Your task to perform on an android device: open app "WhatsApp Messenger" (install if not already installed) Image 0: 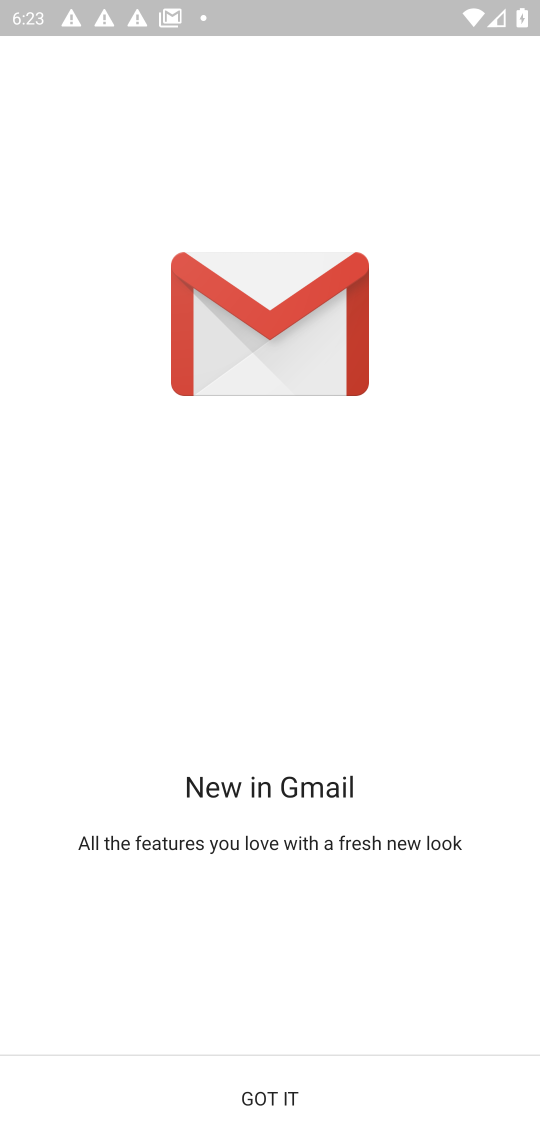
Step 0: press home button
Your task to perform on an android device: open app "WhatsApp Messenger" (install if not already installed) Image 1: 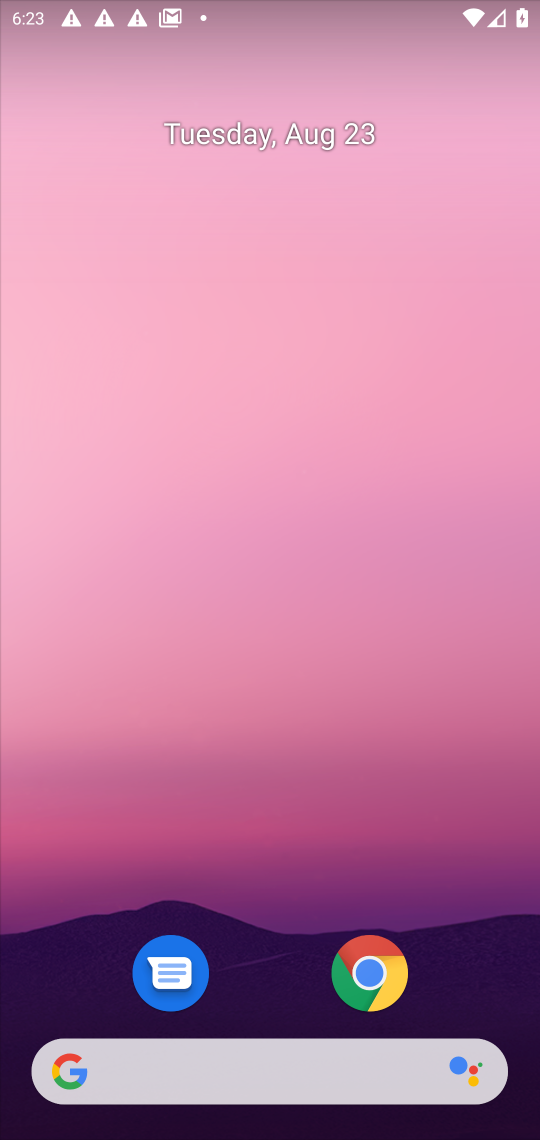
Step 1: drag from (273, 924) to (333, 126)
Your task to perform on an android device: open app "WhatsApp Messenger" (install if not already installed) Image 2: 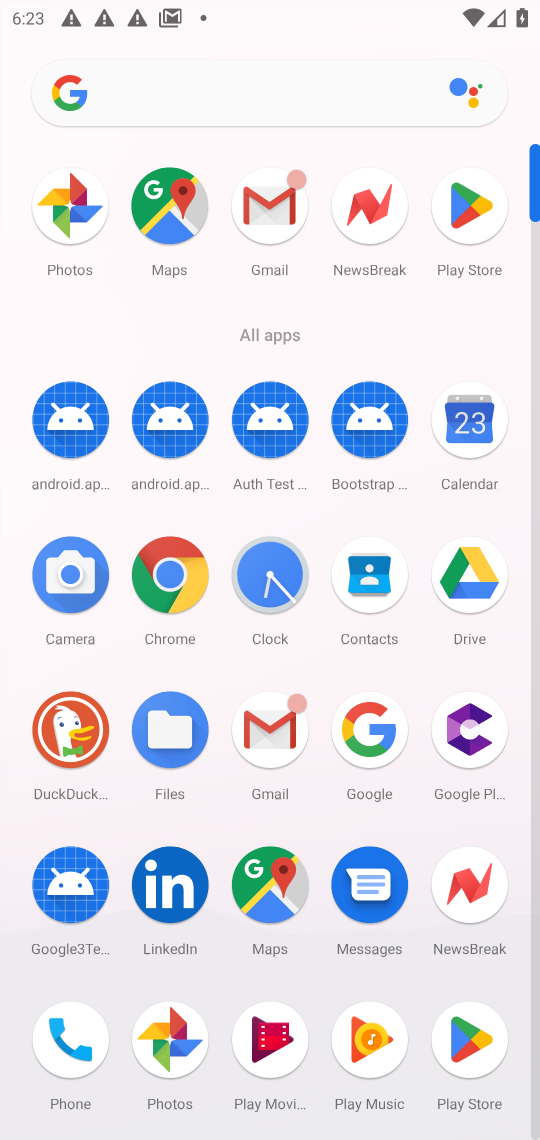
Step 2: click (462, 201)
Your task to perform on an android device: open app "WhatsApp Messenger" (install if not already installed) Image 3: 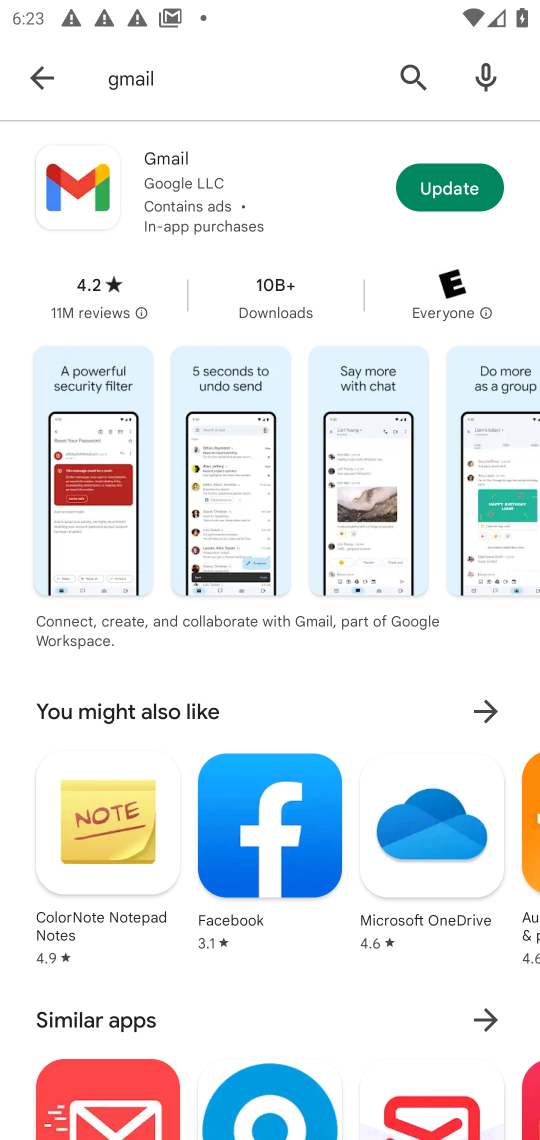
Step 3: click (391, 58)
Your task to perform on an android device: open app "WhatsApp Messenger" (install if not already installed) Image 4: 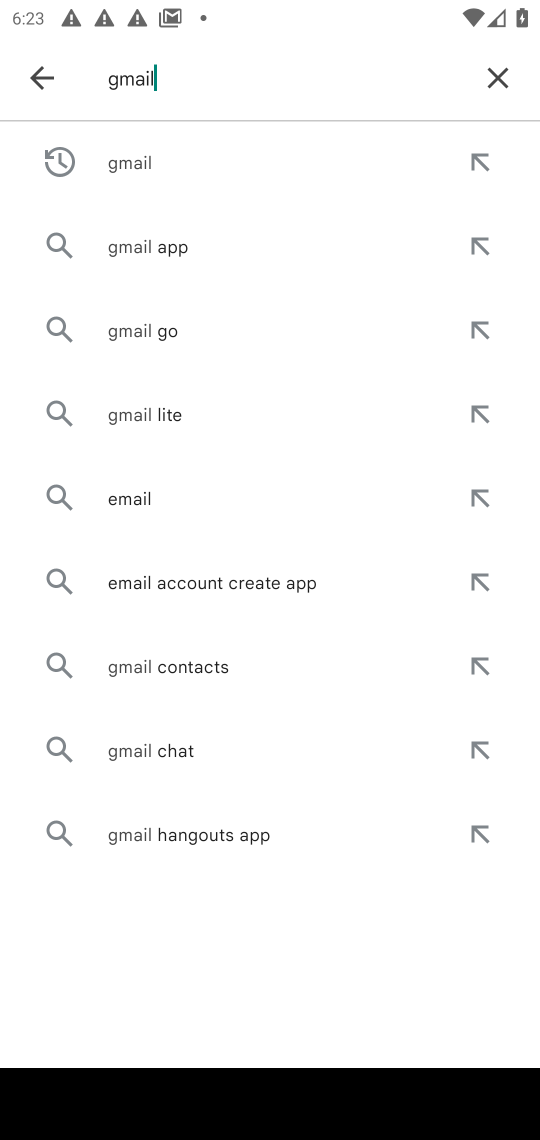
Step 4: click (488, 88)
Your task to perform on an android device: open app "WhatsApp Messenger" (install if not already installed) Image 5: 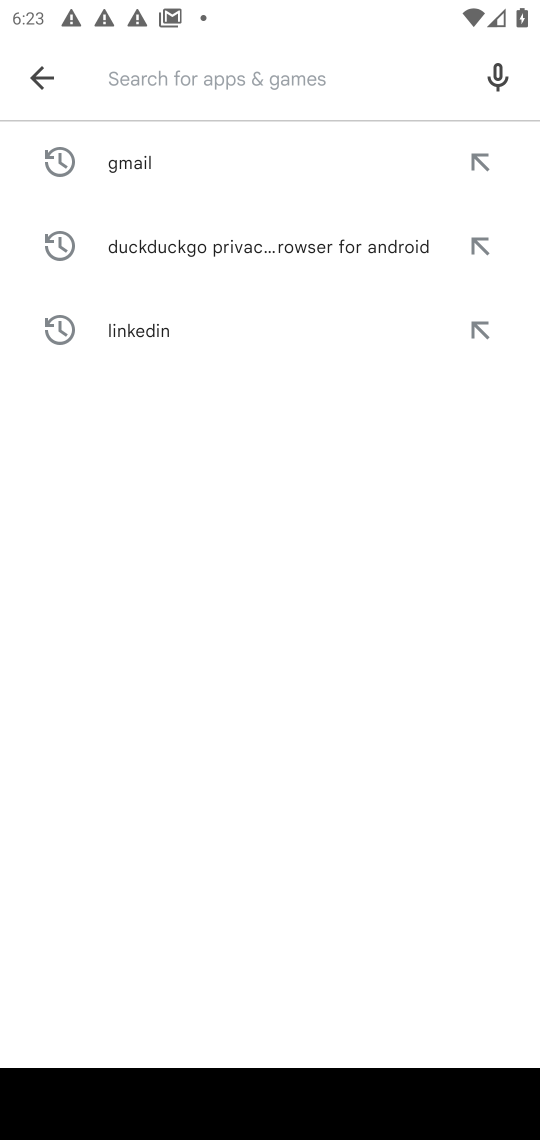
Step 5: click (163, 93)
Your task to perform on an android device: open app "WhatsApp Messenger" (install if not already installed) Image 6: 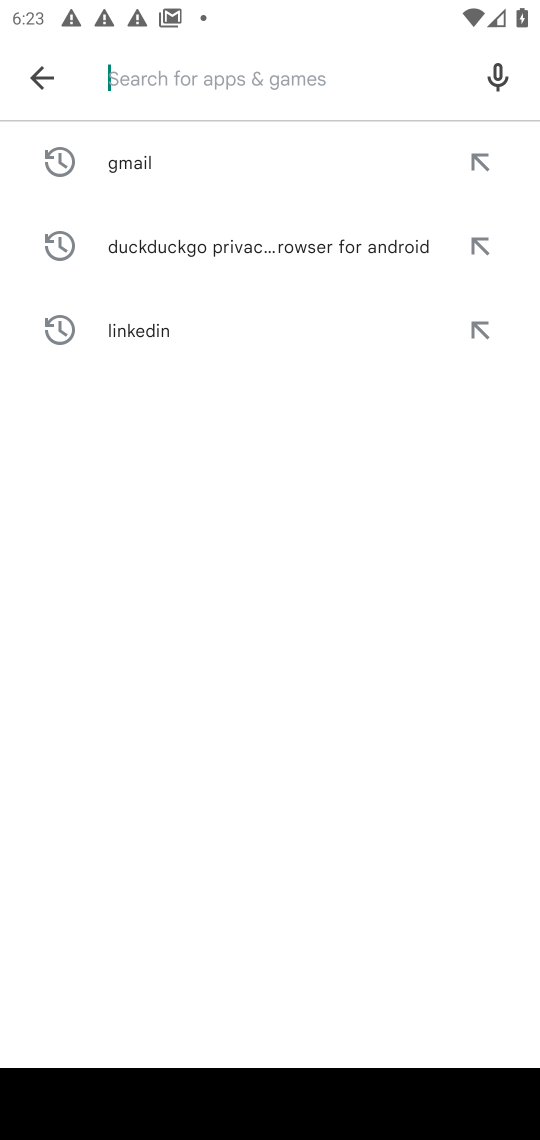
Step 6: type "WhatsApp Messenger"
Your task to perform on an android device: open app "WhatsApp Messenger" (install if not already installed) Image 7: 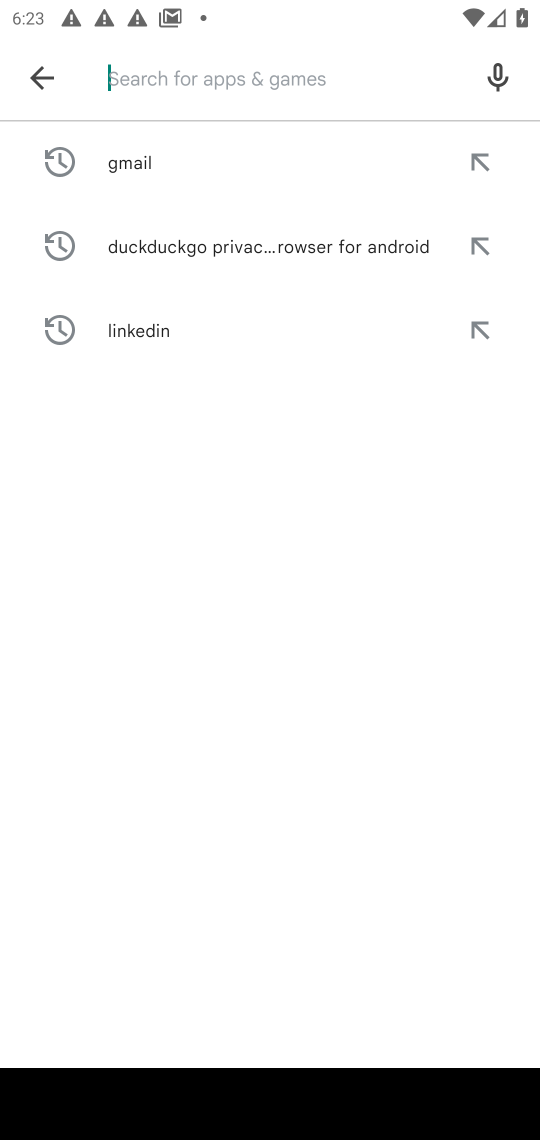
Step 7: click (324, 621)
Your task to perform on an android device: open app "WhatsApp Messenger" (install if not already installed) Image 8: 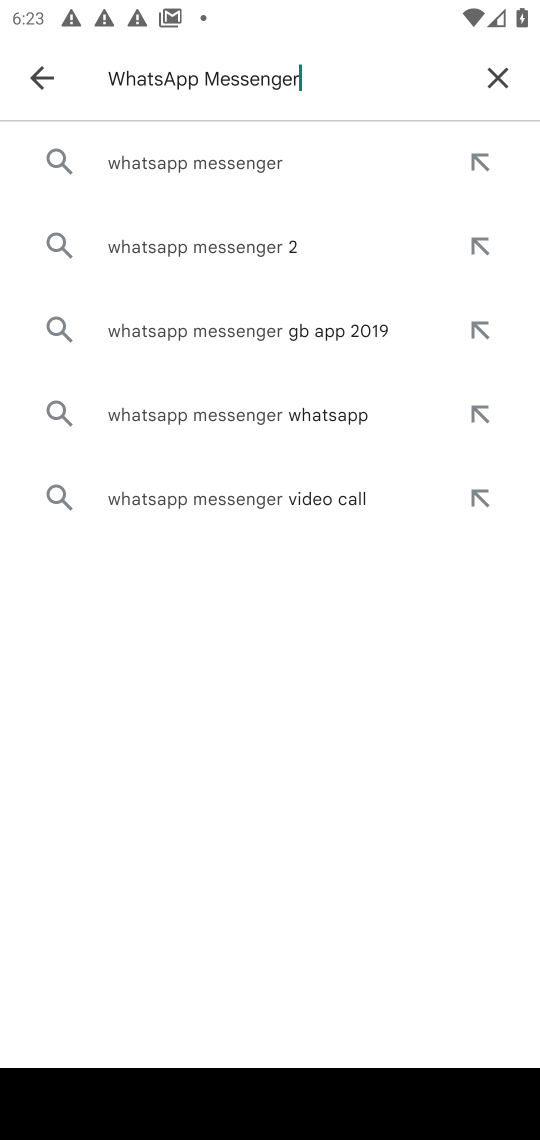
Step 8: click (208, 151)
Your task to perform on an android device: open app "WhatsApp Messenger" (install if not already installed) Image 9: 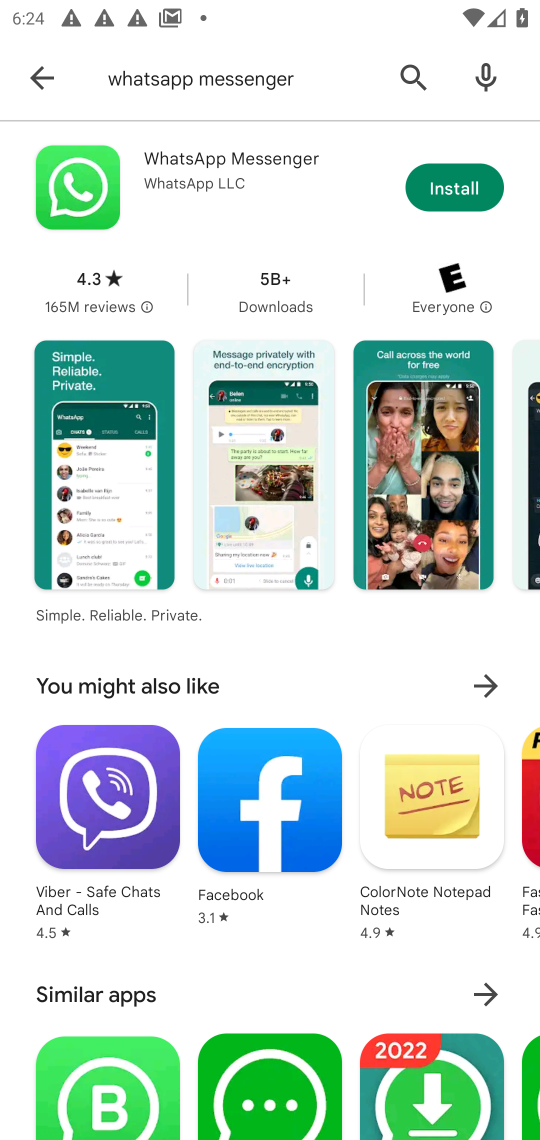
Step 9: click (449, 184)
Your task to perform on an android device: open app "WhatsApp Messenger" (install if not already installed) Image 10: 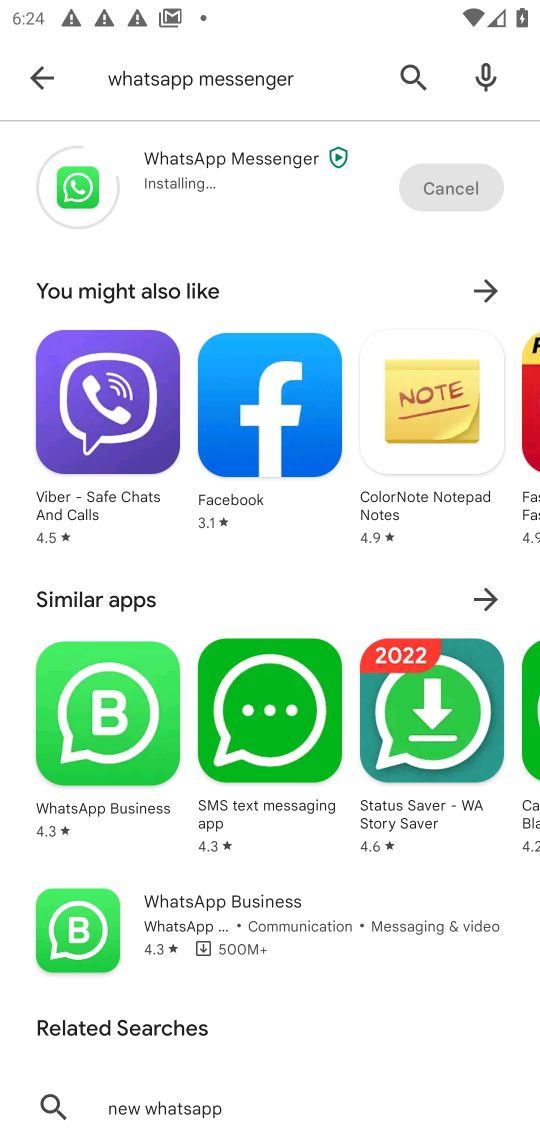
Step 10: press back button
Your task to perform on an android device: open app "WhatsApp Messenger" (install if not already installed) Image 11: 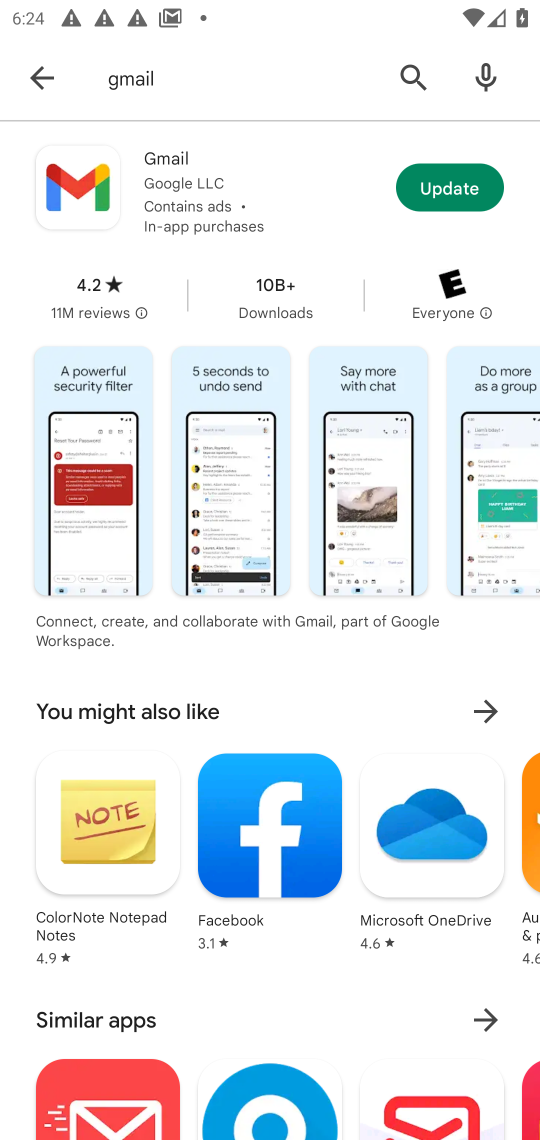
Step 11: click (6, 70)
Your task to perform on an android device: open app "WhatsApp Messenger" (install if not already installed) Image 12: 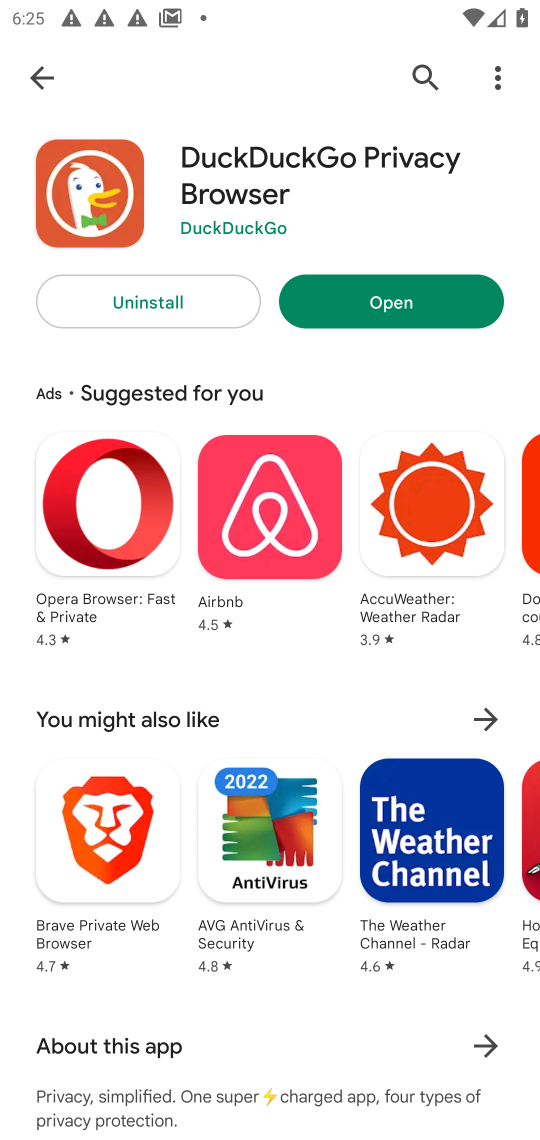
Step 12: click (425, 61)
Your task to perform on an android device: open app "WhatsApp Messenger" (install if not already installed) Image 13: 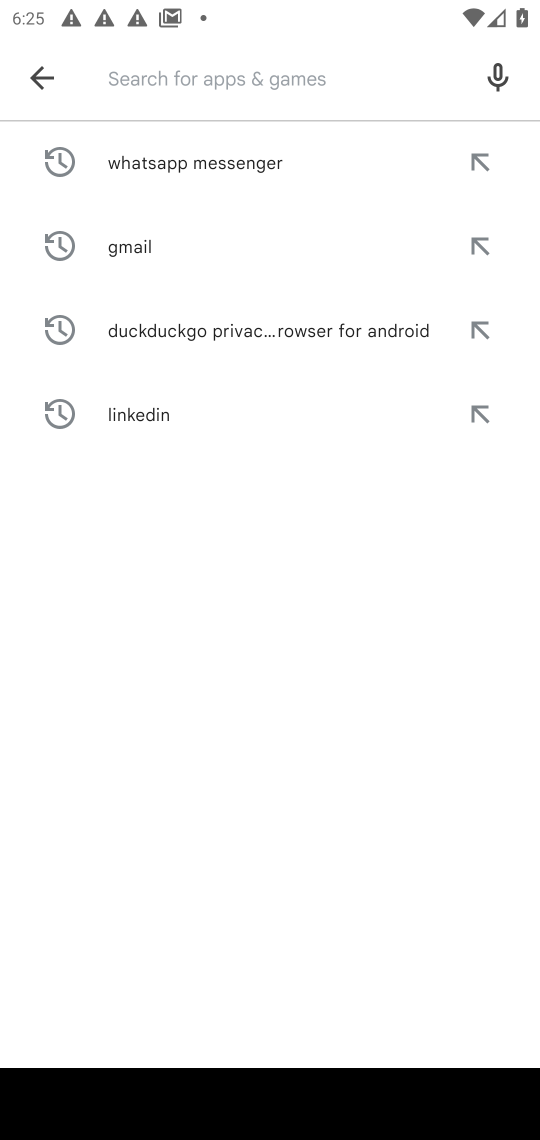
Step 13: click (160, 169)
Your task to perform on an android device: open app "WhatsApp Messenger" (install if not already installed) Image 14: 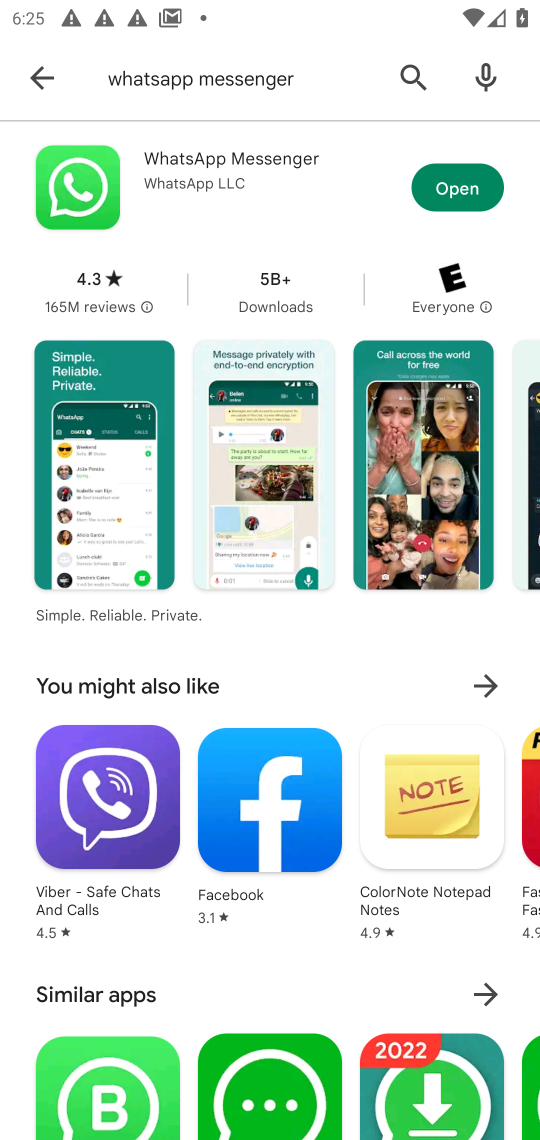
Step 14: click (451, 207)
Your task to perform on an android device: open app "WhatsApp Messenger" (install if not already installed) Image 15: 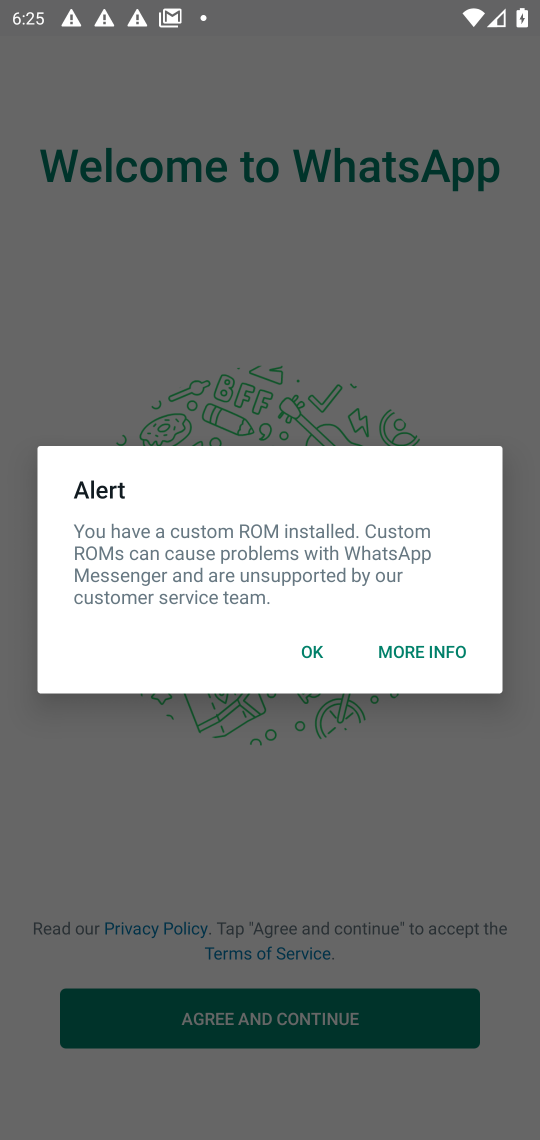
Step 15: click (322, 658)
Your task to perform on an android device: open app "WhatsApp Messenger" (install if not already installed) Image 16: 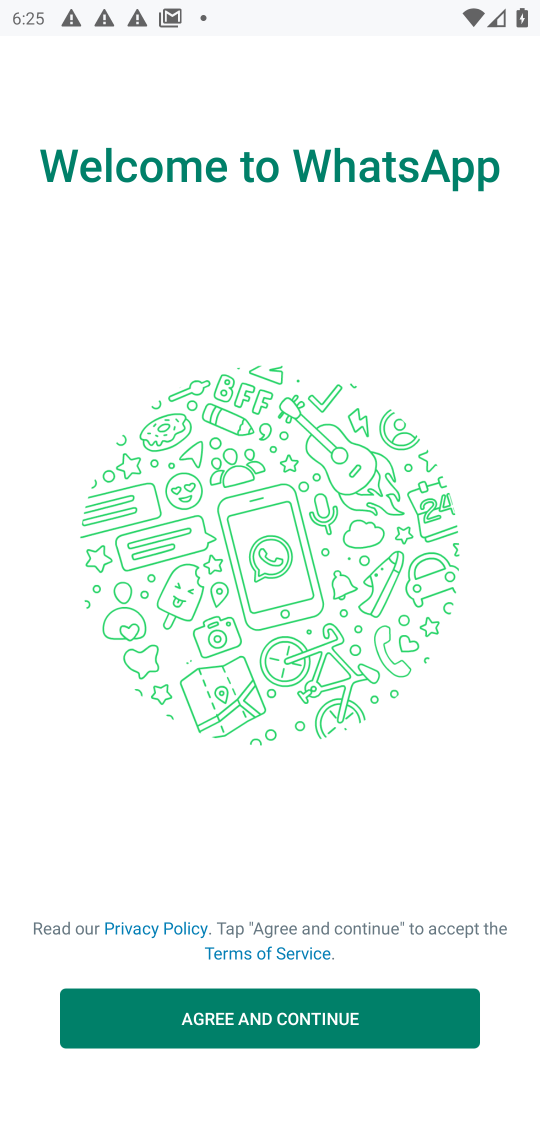
Step 16: task complete